Your task to perform on an android device: Turn off the flashlight Image 0: 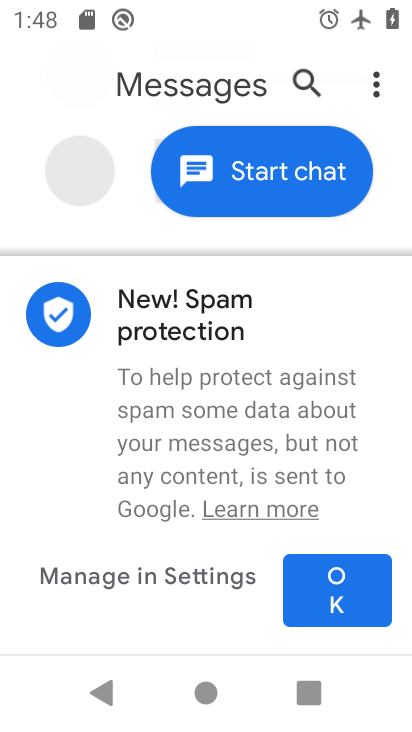
Step 0: press home button
Your task to perform on an android device: Turn off the flashlight Image 1: 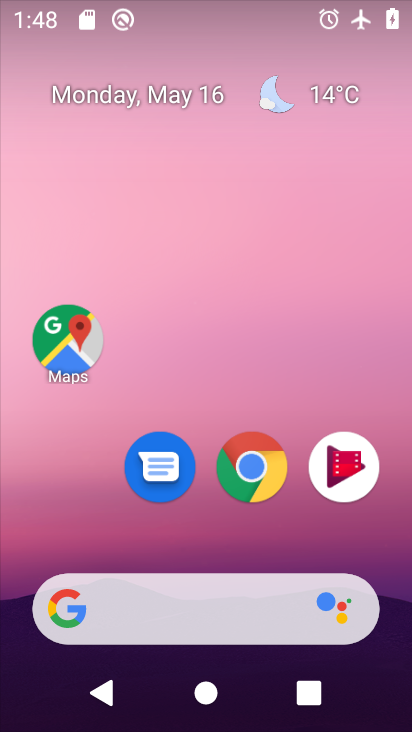
Step 1: drag from (216, 554) to (240, 118)
Your task to perform on an android device: Turn off the flashlight Image 2: 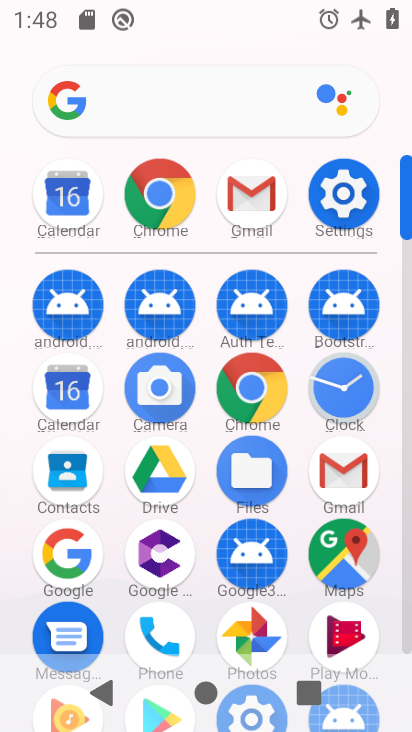
Step 2: click (324, 179)
Your task to perform on an android device: Turn off the flashlight Image 3: 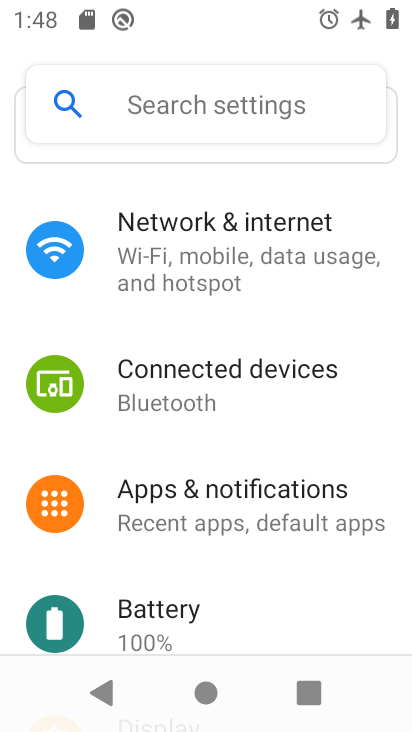
Step 3: task complete